Your task to perform on an android device: turn off notifications in google photos Image 0: 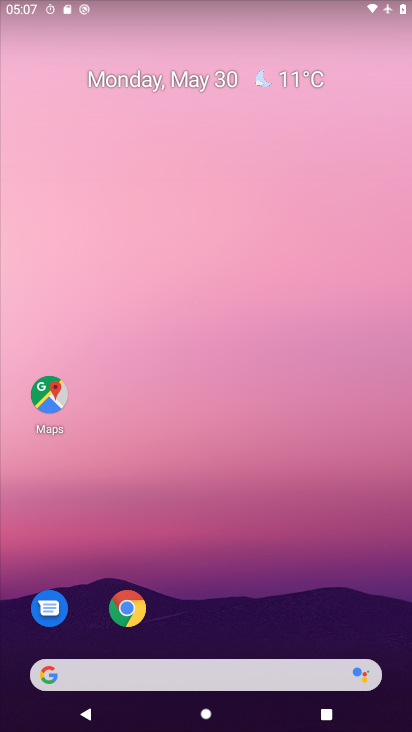
Step 0: drag from (279, 539) to (137, 70)
Your task to perform on an android device: turn off notifications in google photos Image 1: 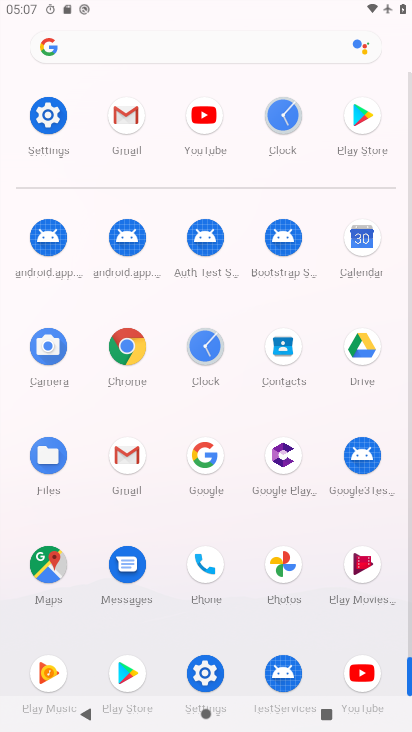
Step 1: click (272, 553)
Your task to perform on an android device: turn off notifications in google photos Image 2: 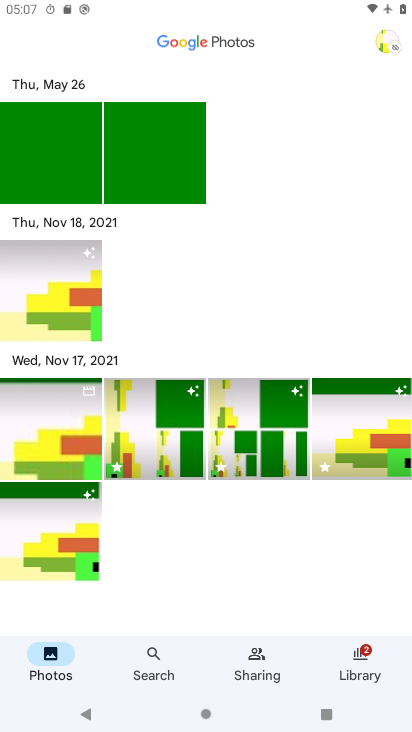
Step 2: click (404, 38)
Your task to perform on an android device: turn off notifications in google photos Image 3: 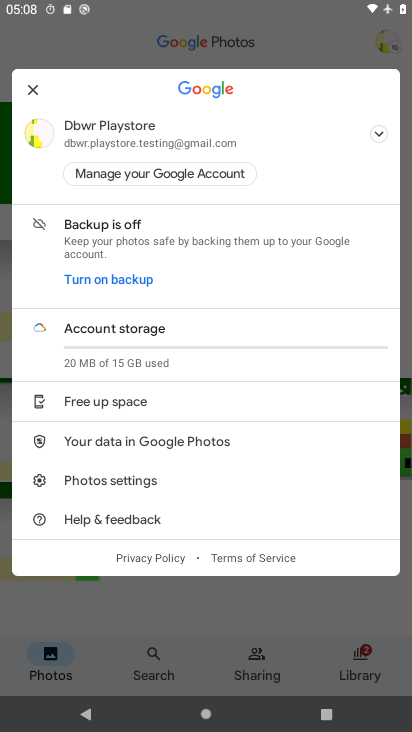
Step 3: click (106, 469)
Your task to perform on an android device: turn off notifications in google photos Image 4: 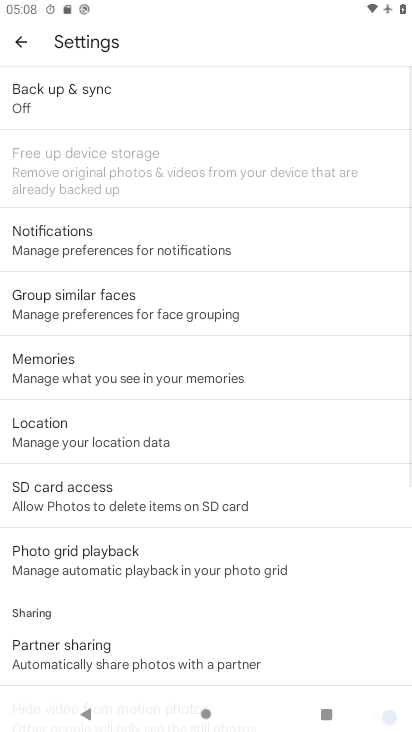
Step 4: click (117, 240)
Your task to perform on an android device: turn off notifications in google photos Image 5: 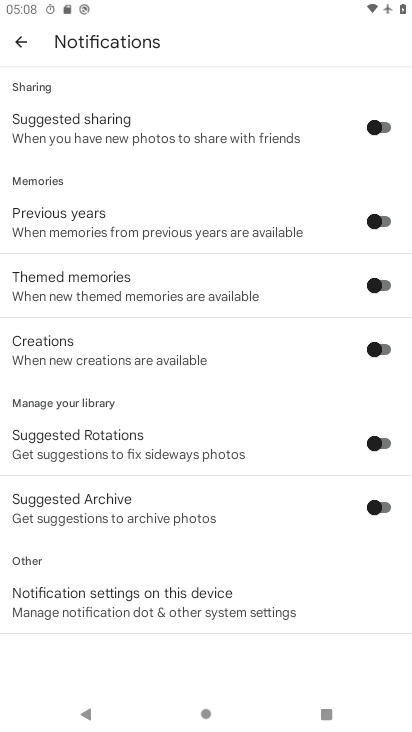
Step 5: task complete